Your task to perform on an android device: open chrome privacy settings Image 0: 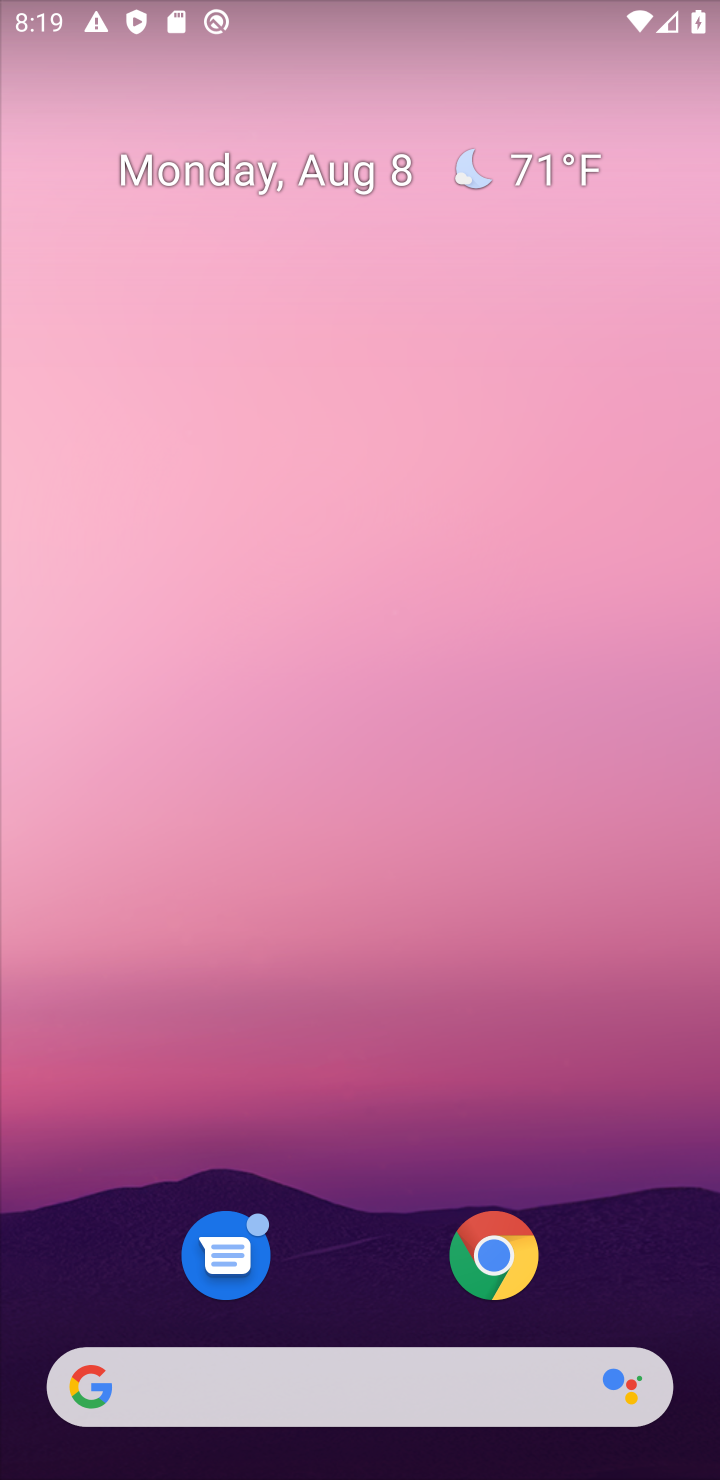
Step 0: click (491, 1240)
Your task to perform on an android device: open chrome privacy settings Image 1: 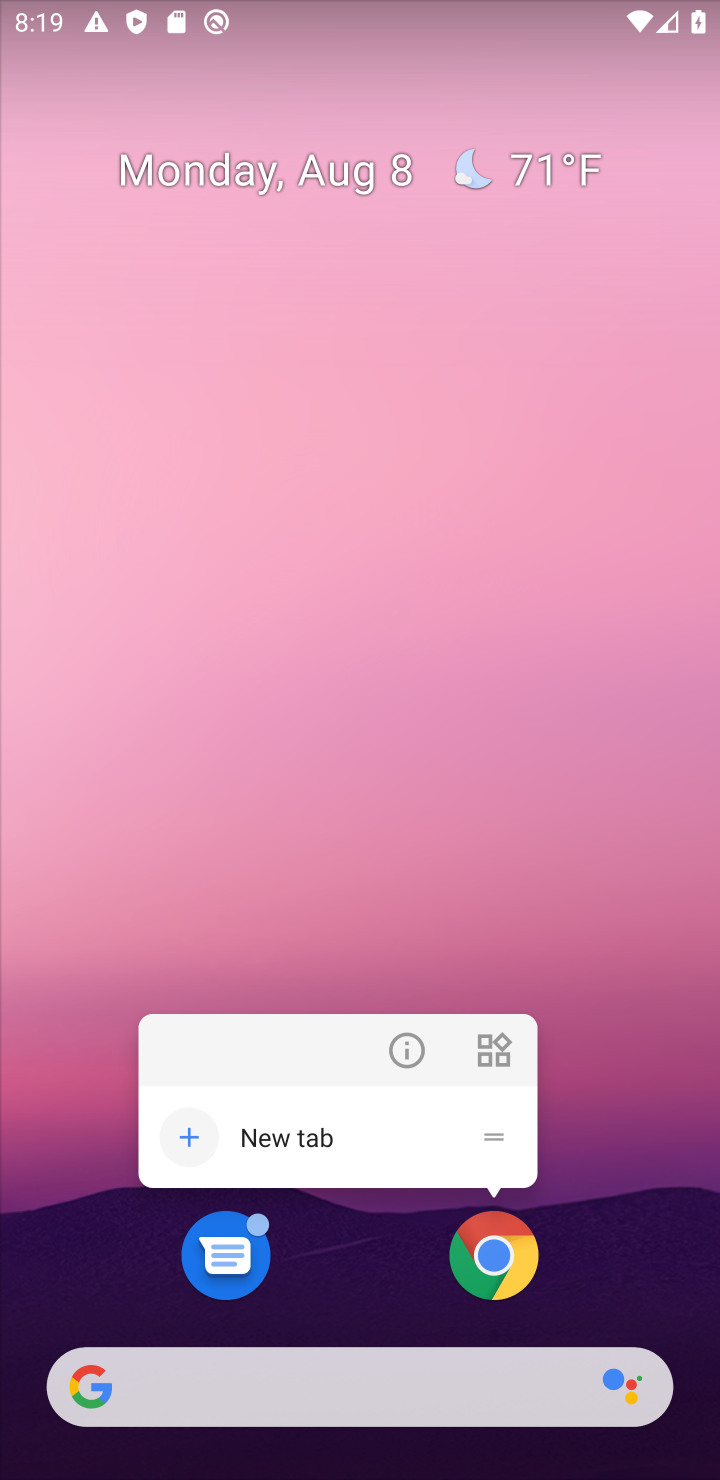
Step 1: click (572, 1246)
Your task to perform on an android device: open chrome privacy settings Image 2: 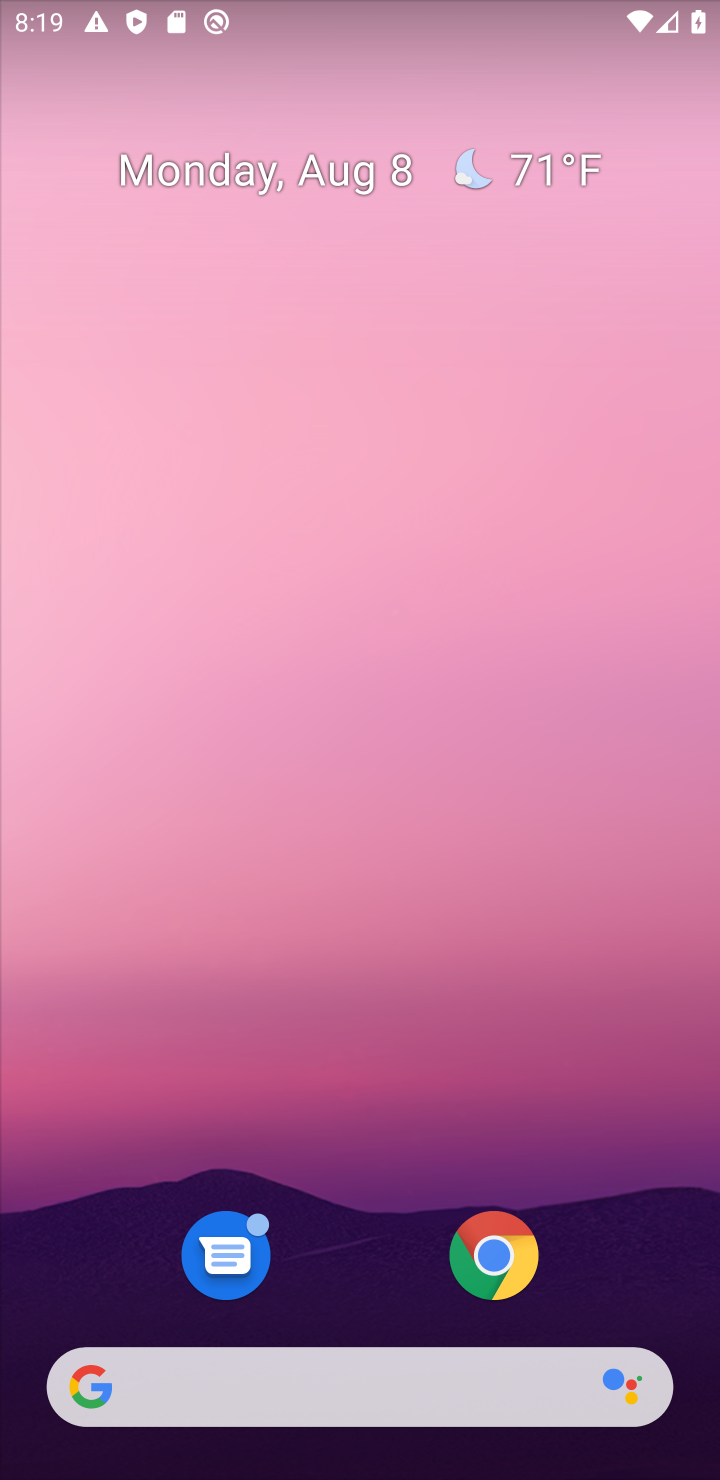
Step 2: drag from (592, 1302) to (576, 25)
Your task to perform on an android device: open chrome privacy settings Image 3: 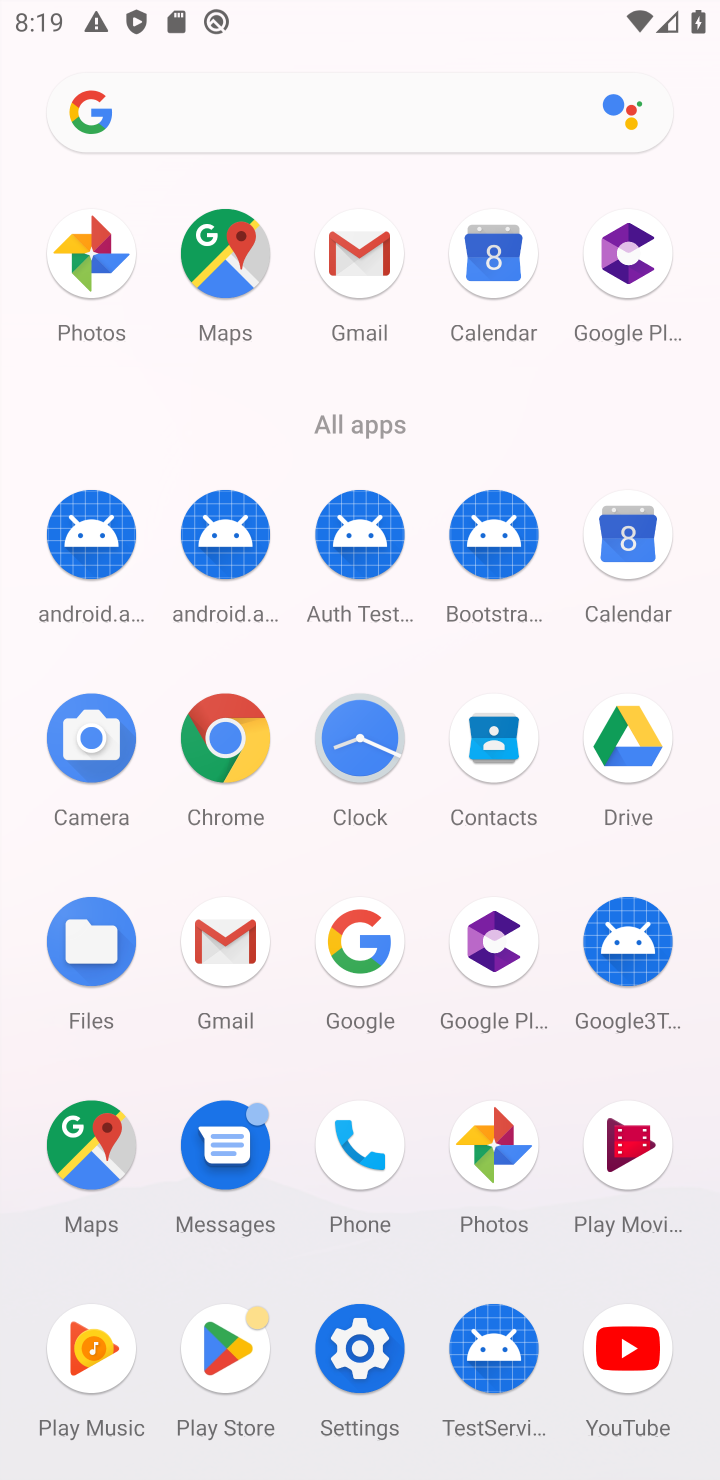
Step 3: click (220, 733)
Your task to perform on an android device: open chrome privacy settings Image 4: 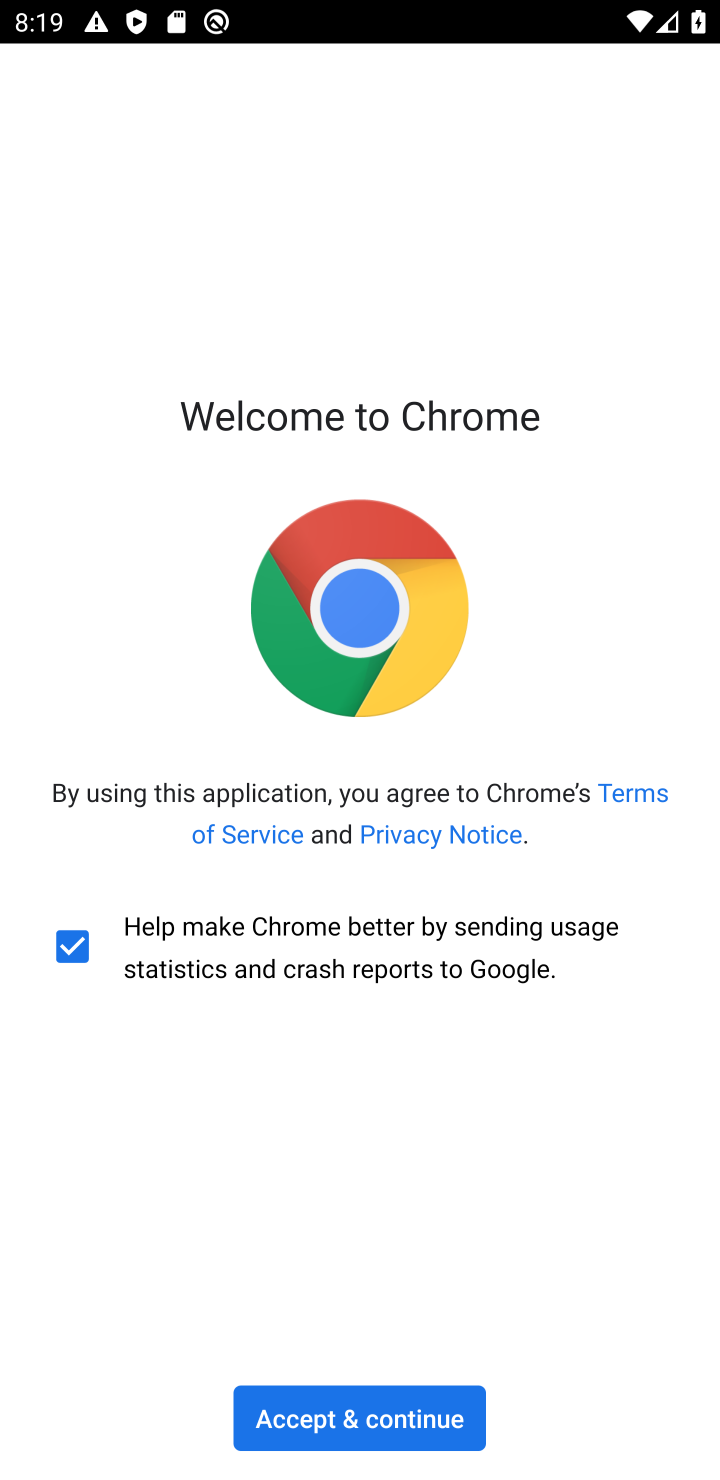
Step 4: click (349, 1403)
Your task to perform on an android device: open chrome privacy settings Image 5: 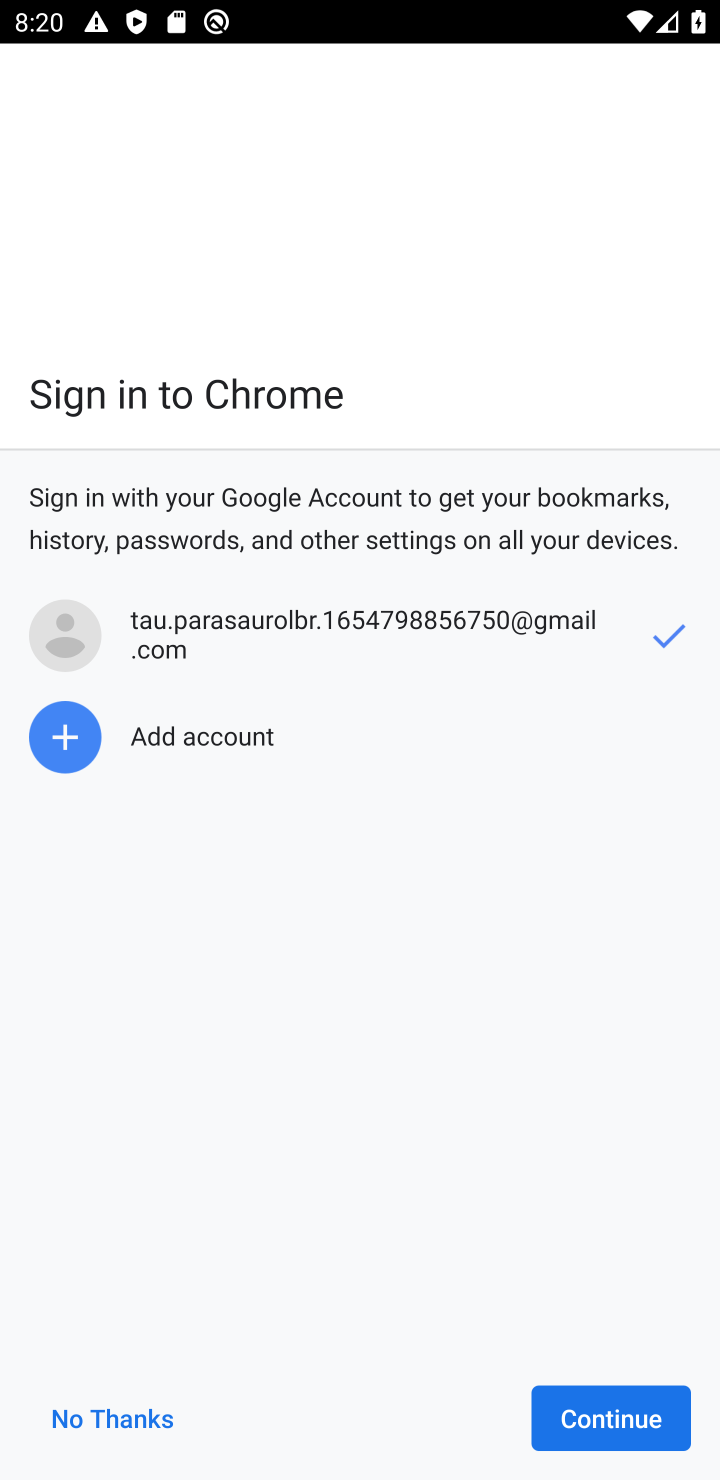
Step 5: click (602, 1421)
Your task to perform on an android device: open chrome privacy settings Image 6: 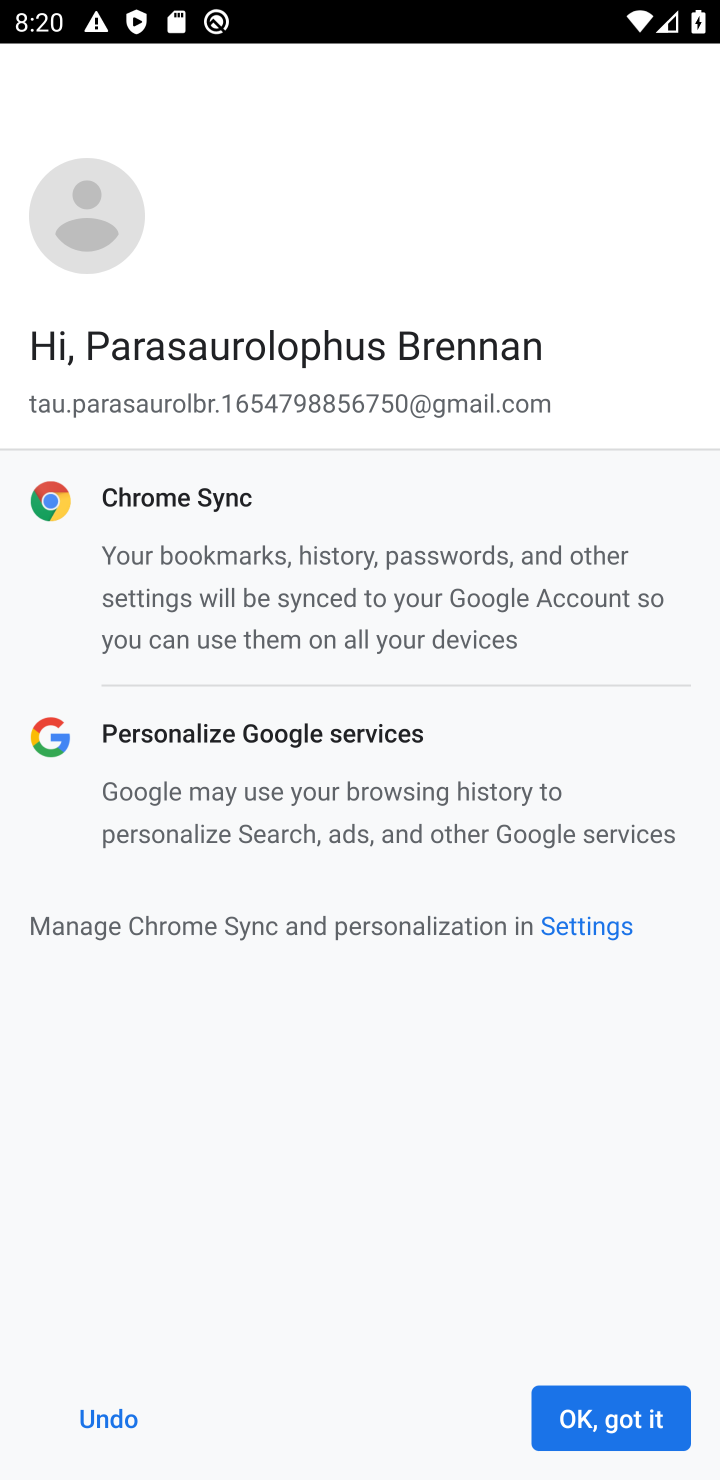
Step 6: click (606, 1413)
Your task to perform on an android device: open chrome privacy settings Image 7: 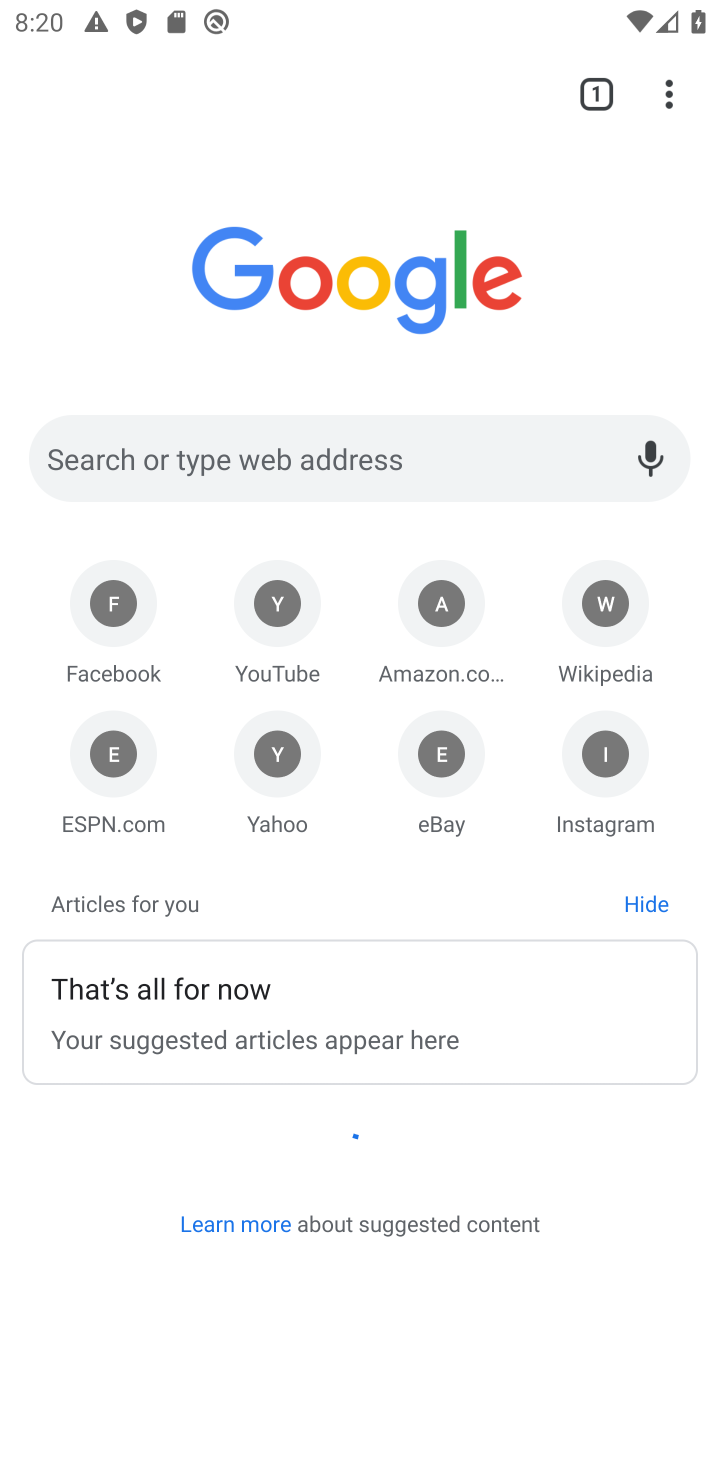
Step 7: click (669, 84)
Your task to perform on an android device: open chrome privacy settings Image 8: 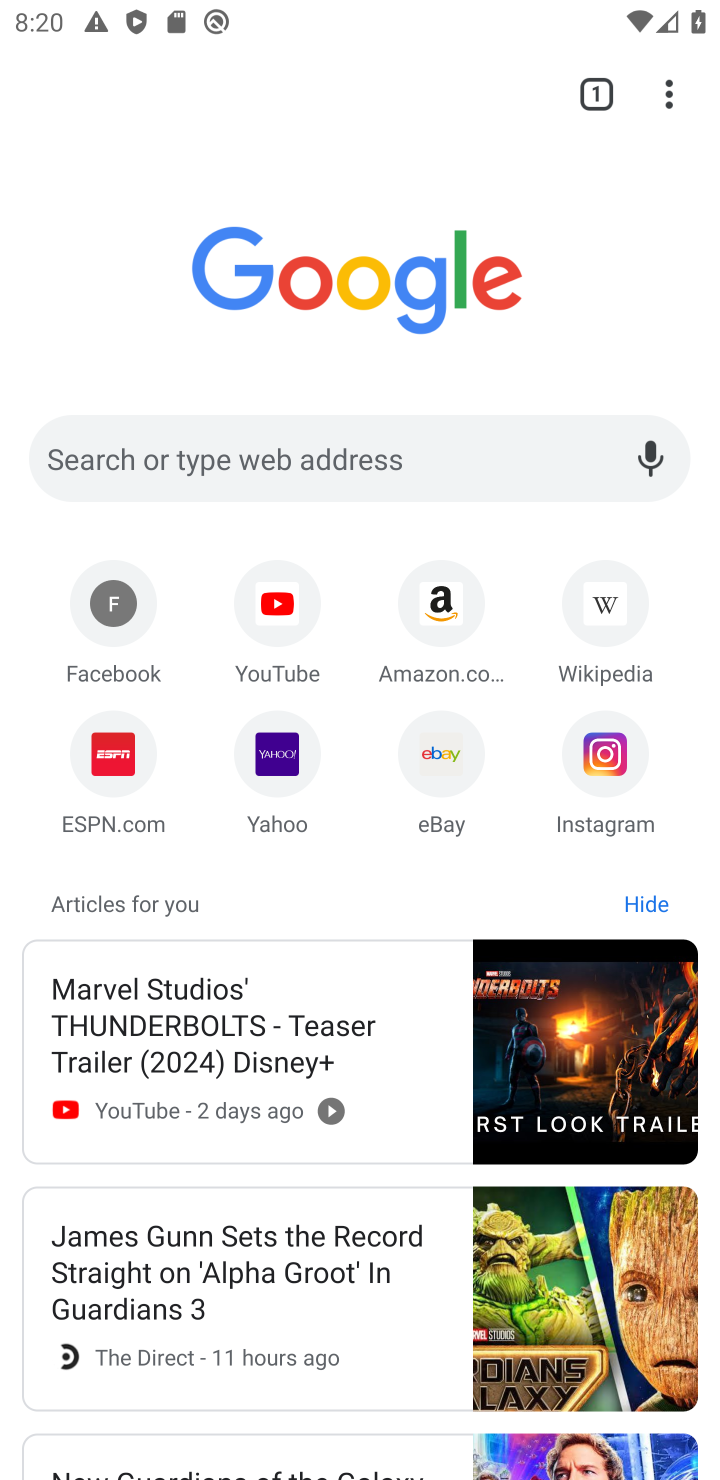
Step 8: click (668, 92)
Your task to perform on an android device: open chrome privacy settings Image 9: 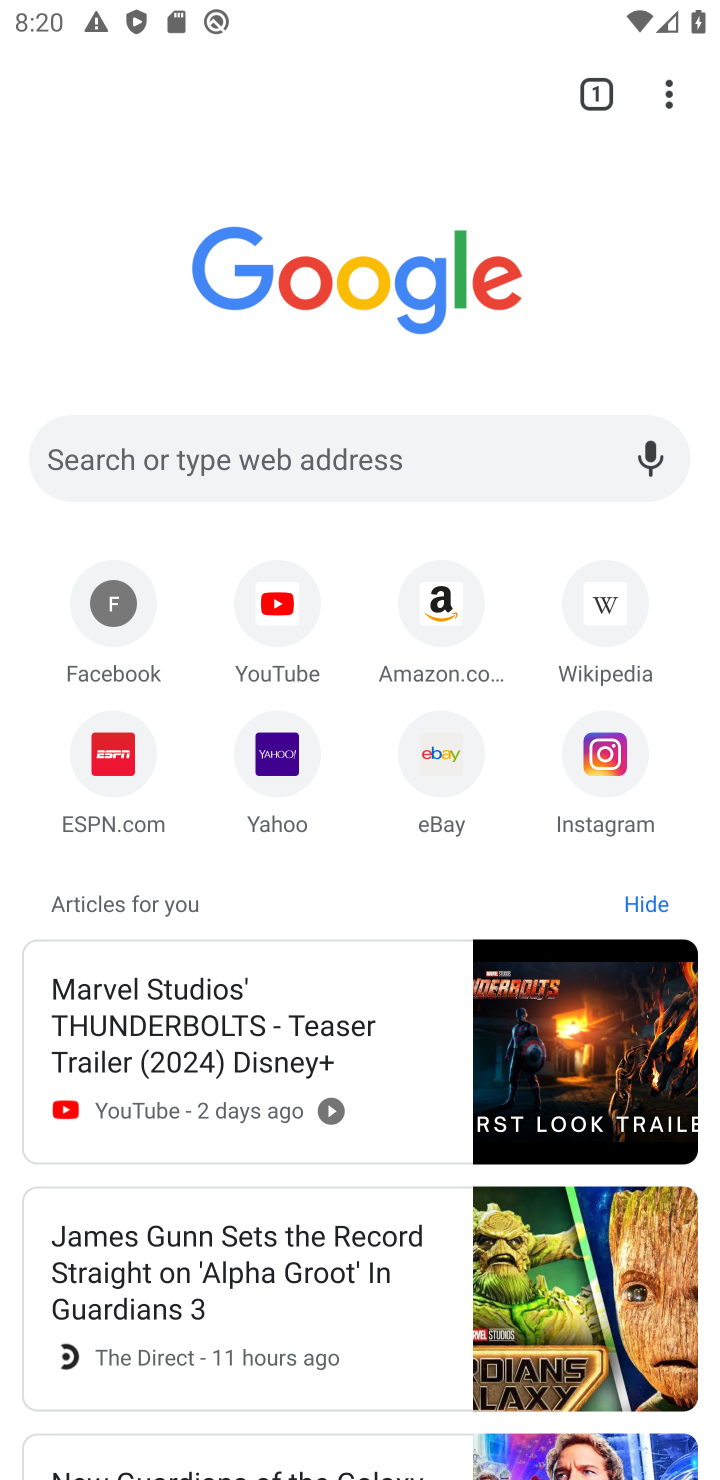
Step 9: click (667, 99)
Your task to perform on an android device: open chrome privacy settings Image 10: 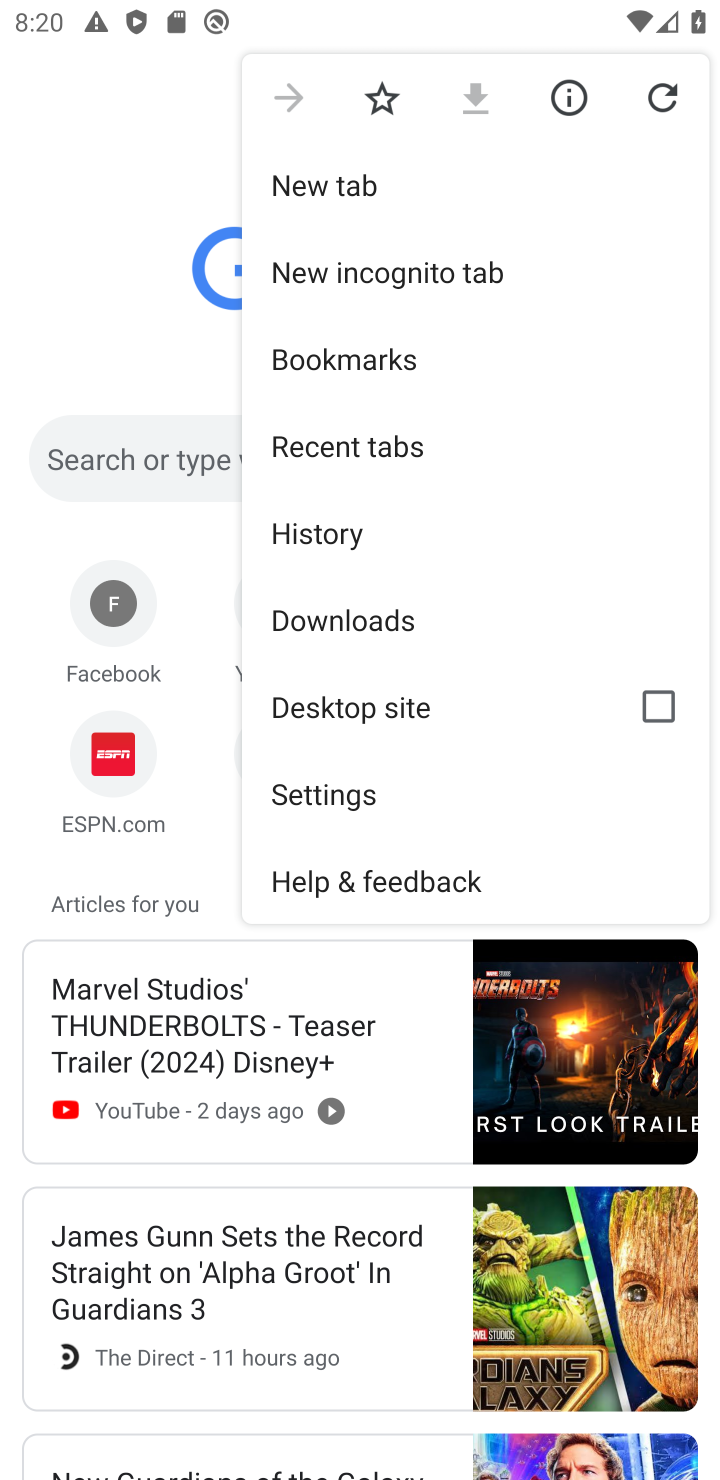
Step 10: click (384, 784)
Your task to perform on an android device: open chrome privacy settings Image 11: 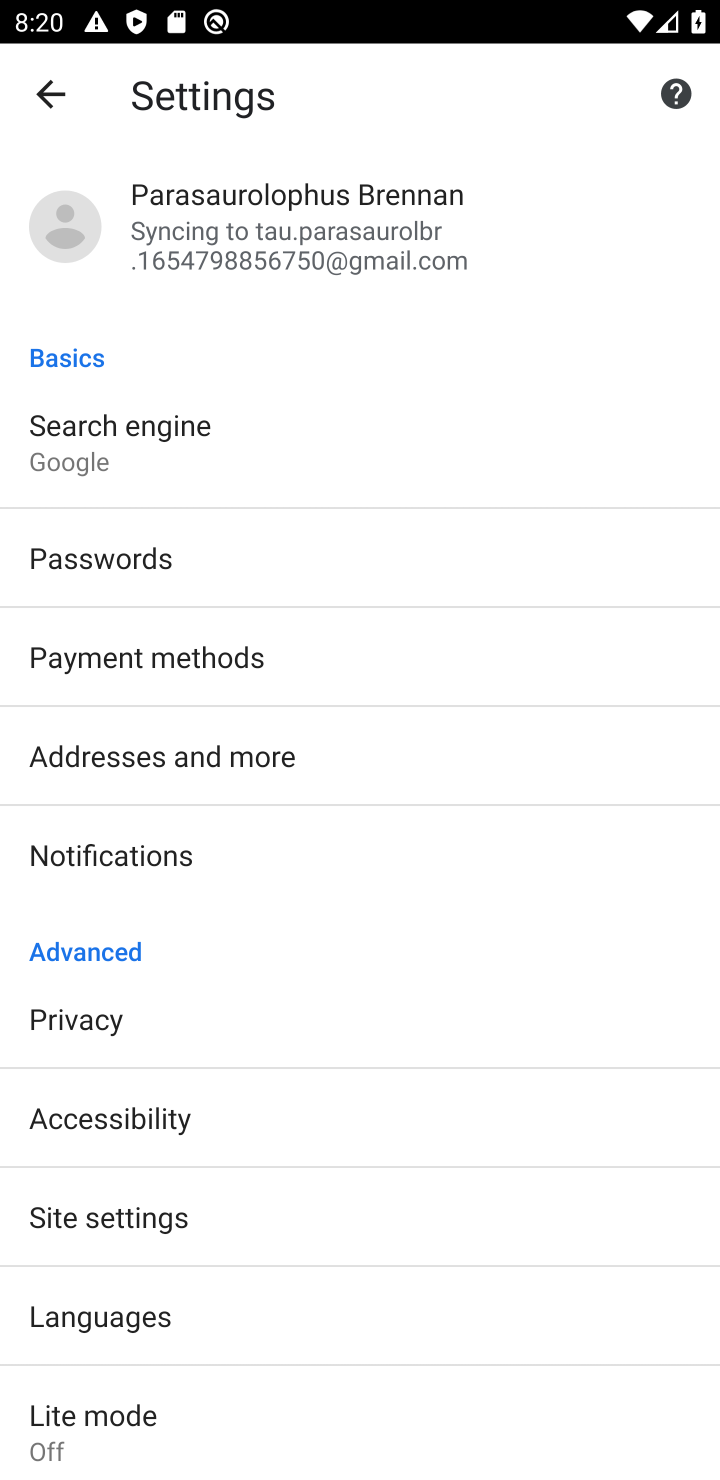
Step 11: click (148, 1022)
Your task to perform on an android device: open chrome privacy settings Image 12: 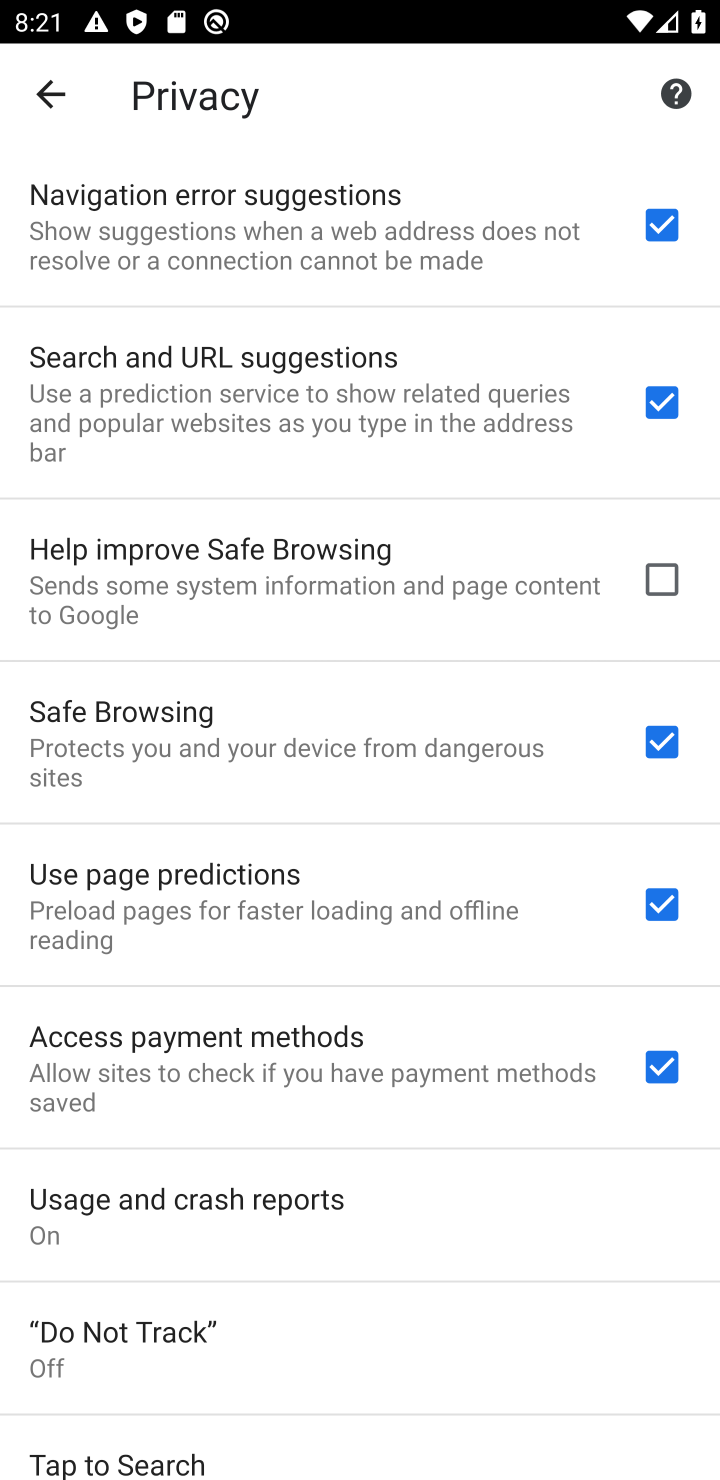
Step 12: task complete